Your task to perform on an android device: Open Google Image 0: 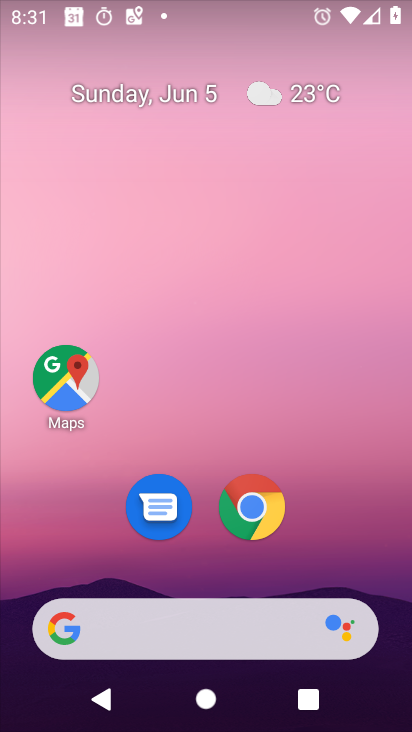
Step 0: drag from (193, 661) to (178, 78)
Your task to perform on an android device: Open Google Image 1: 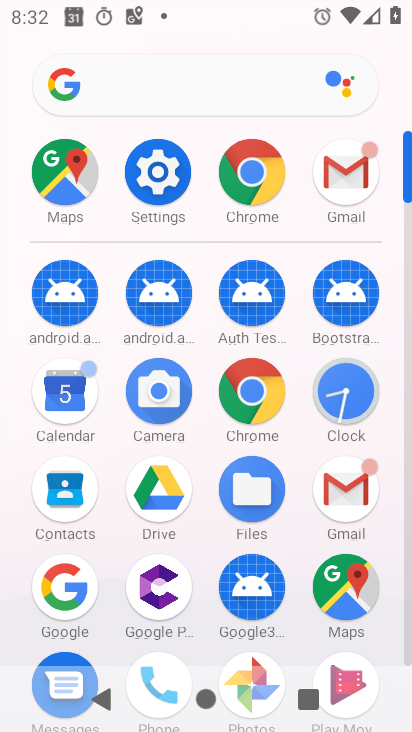
Step 1: click (74, 86)
Your task to perform on an android device: Open Google Image 2: 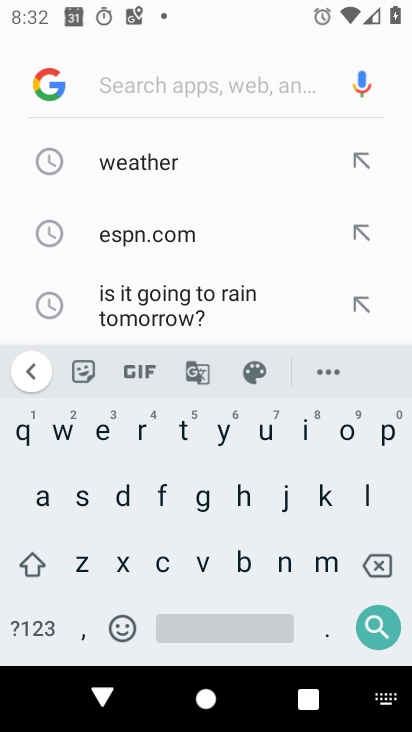
Step 2: click (33, 74)
Your task to perform on an android device: Open Google Image 3: 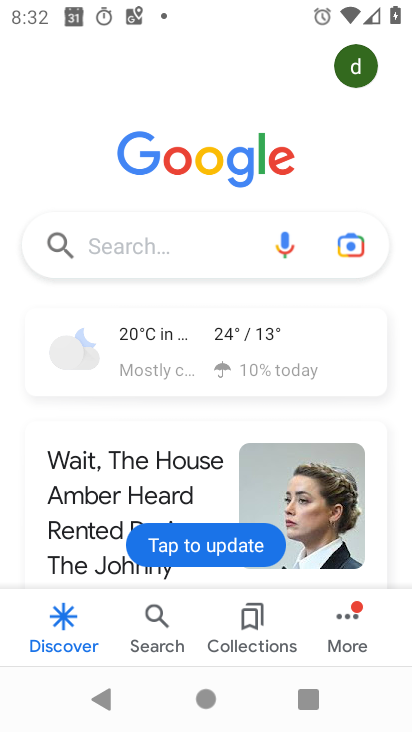
Step 3: task complete